Your task to perform on an android device: Do I have any events this weekend? Image 0: 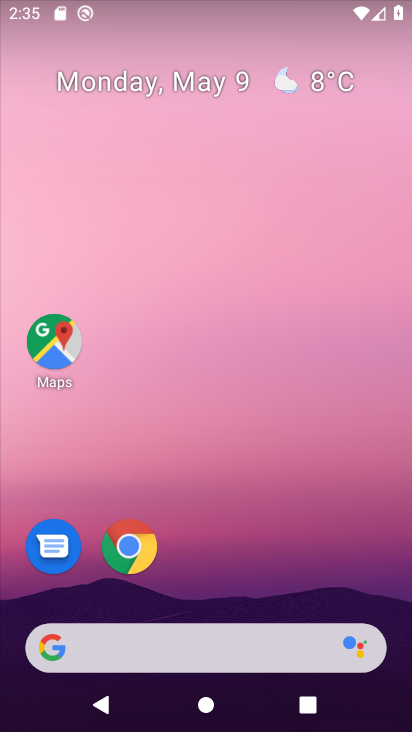
Step 0: drag from (263, 512) to (257, 0)
Your task to perform on an android device: Do I have any events this weekend? Image 1: 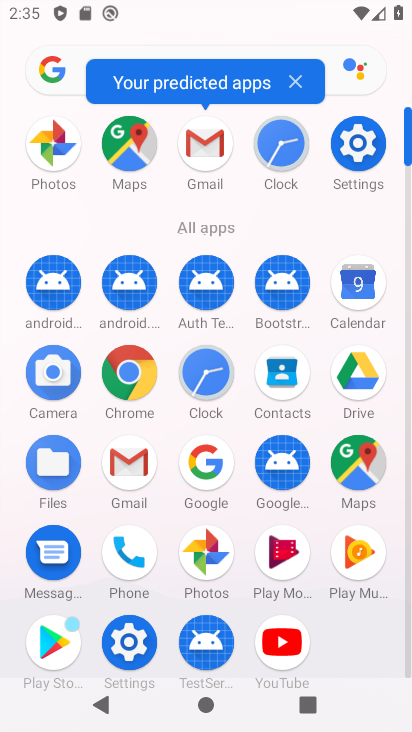
Step 1: click (359, 280)
Your task to perform on an android device: Do I have any events this weekend? Image 2: 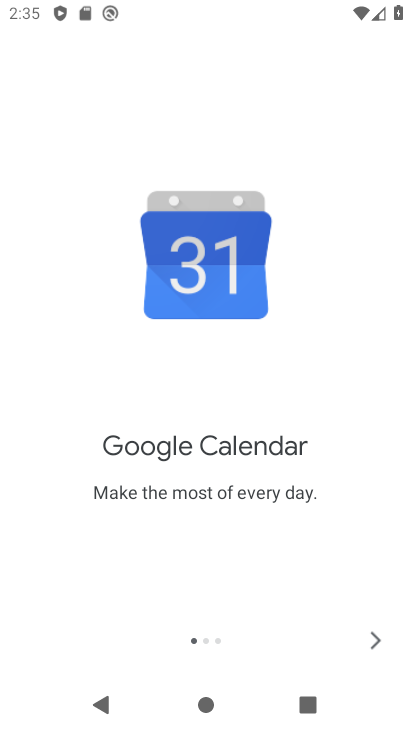
Step 2: click (366, 640)
Your task to perform on an android device: Do I have any events this weekend? Image 3: 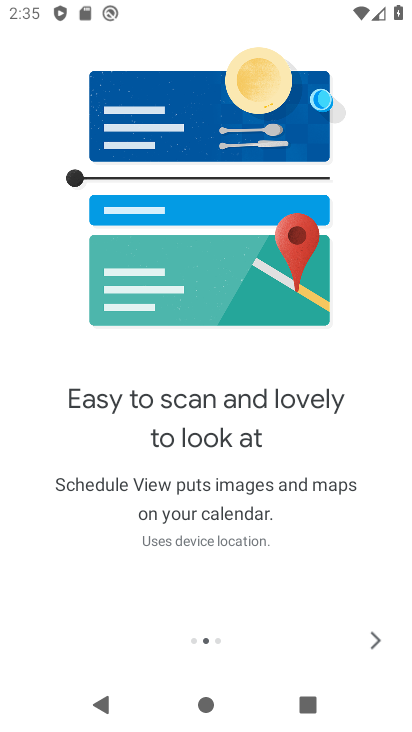
Step 3: click (375, 640)
Your task to perform on an android device: Do I have any events this weekend? Image 4: 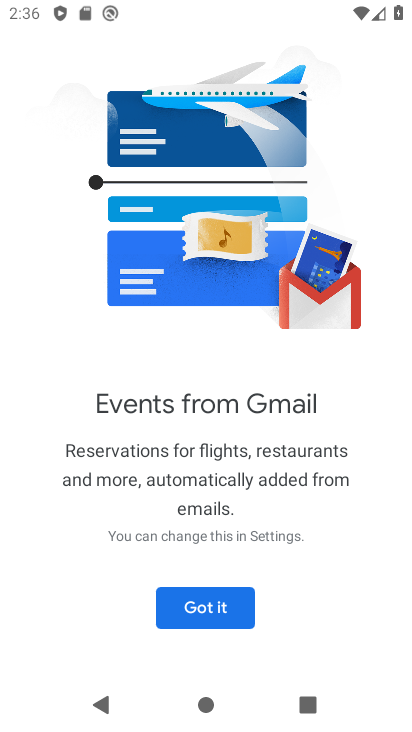
Step 4: click (247, 603)
Your task to perform on an android device: Do I have any events this weekend? Image 5: 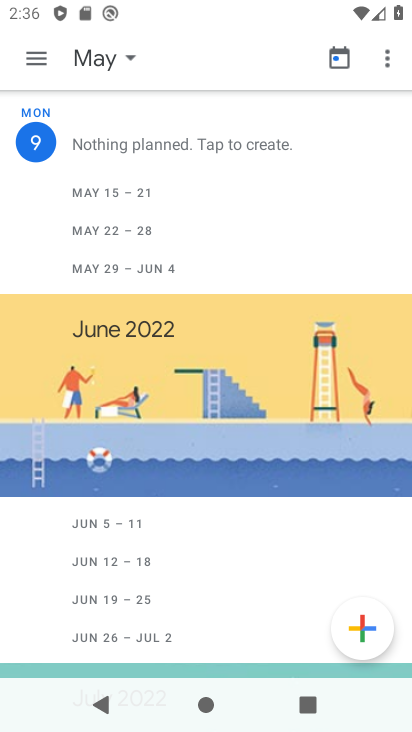
Step 5: click (38, 53)
Your task to perform on an android device: Do I have any events this weekend? Image 6: 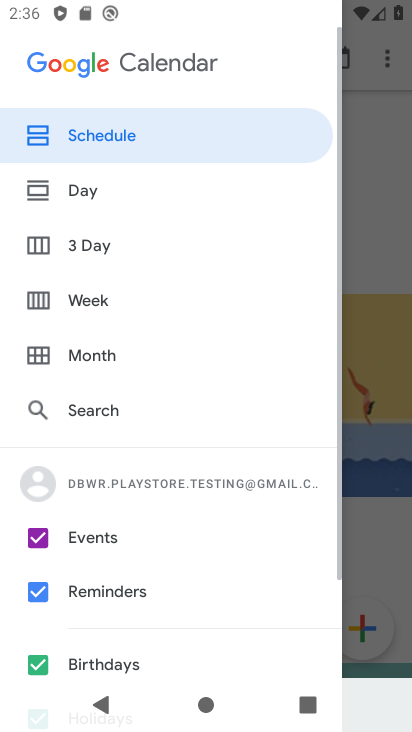
Step 6: click (41, 292)
Your task to perform on an android device: Do I have any events this weekend? Image 7: 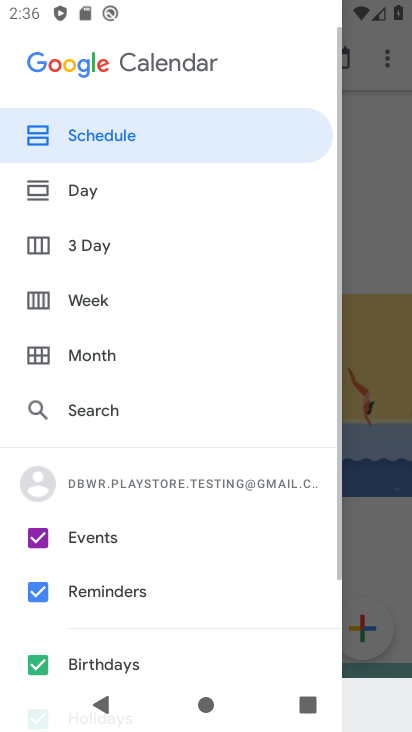
Step 7: click (37, 299)
Your task to perform on an android device: Do I have any events this weekend? Image 8: 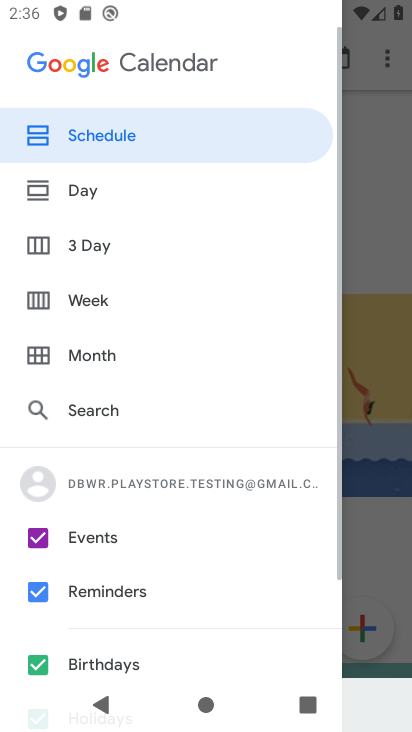
Step 8: click (373, 244)
Your task to perform on an android device: Do I have any events this weekend? Image 9: 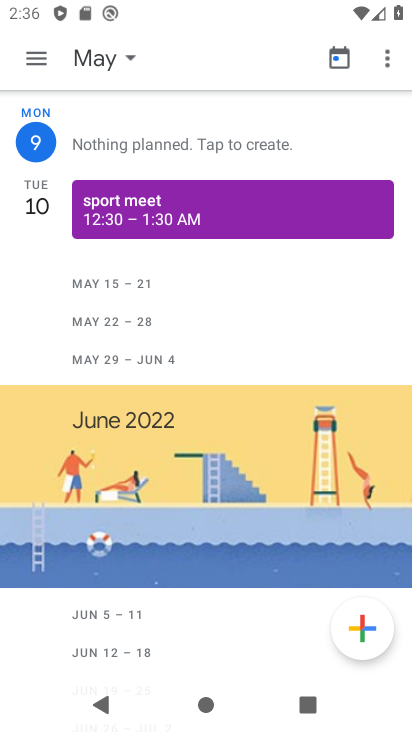
Step 9: click (37, 59)
Your task to perform on an android device: Do I have any events this weekend? Image 10: 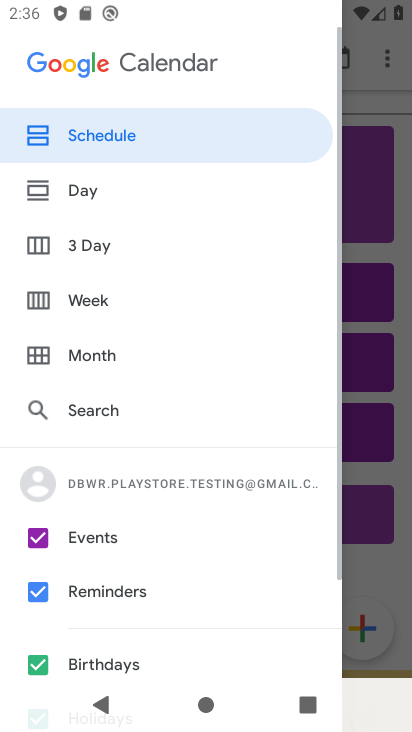
Step 10: click (36, 289)
Your task to perform on an android device: Do I have any events this weekend? Image 11: 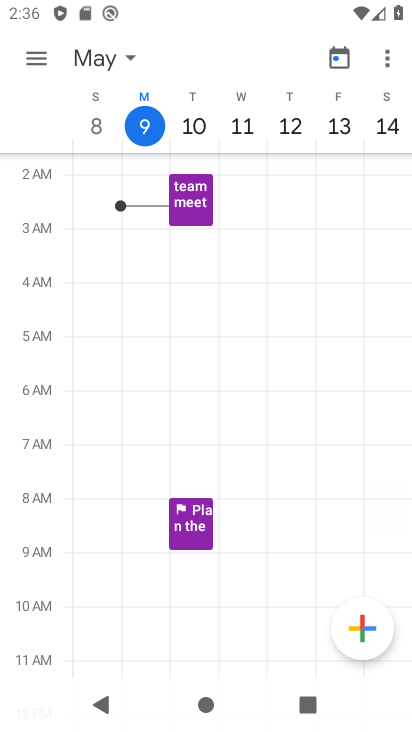
Step 11: click (390, 107)
Your task to perform on an android device: Do I have any events this weekend? Image 12: 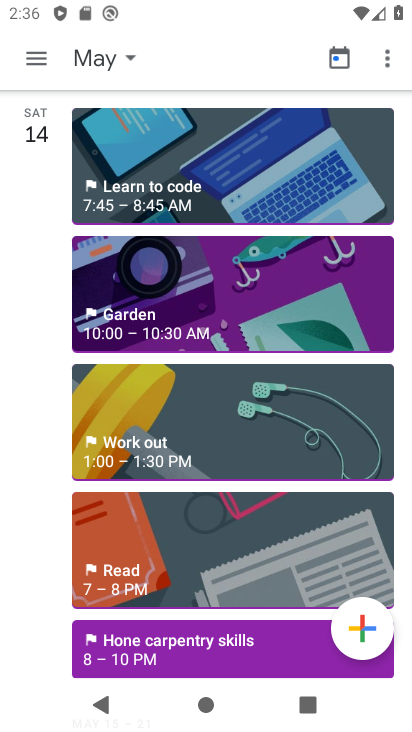
Step 12: task complete